Your task to perform on an android device: add a contact in the contacts app Image 0: 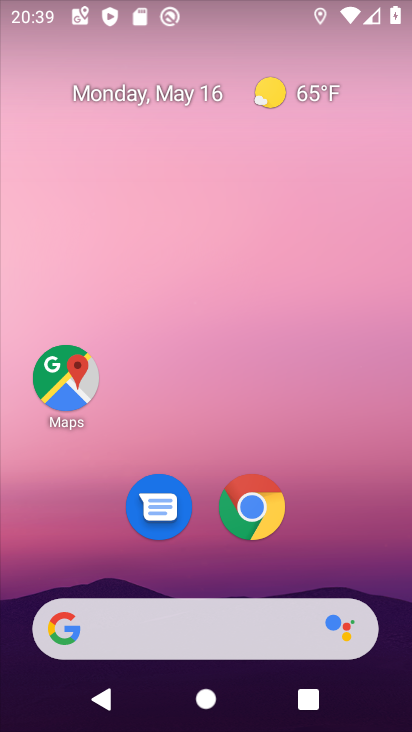
Step 0: drag from (203, 593) to (218, 18)
Your task to perform on an android device: add a contact in the contacts app Image 1: 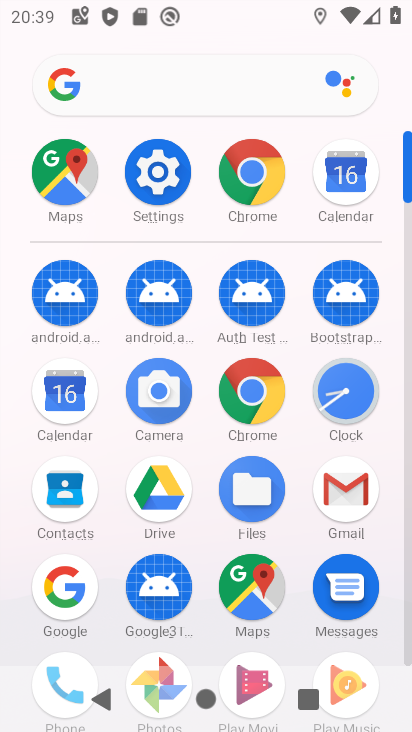
Step 1: drag from (94, 564) to (58, 192)
Your task to perform on an android device: add a contact in the contacts app Image 2: 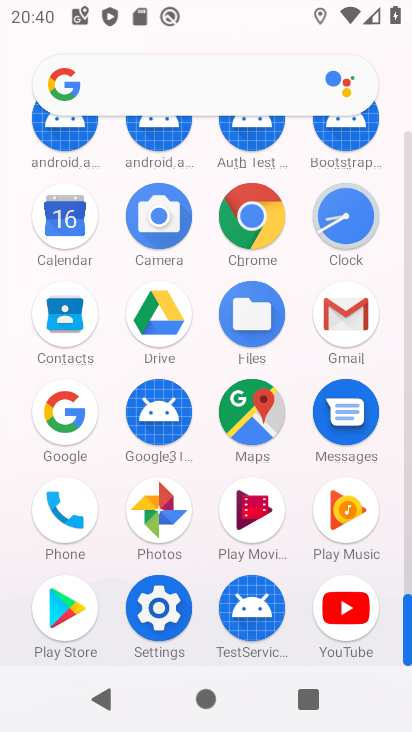
Step 2: click (76, 523)
Your task to perform on an android device: add a contact in the contacts app Image 3: 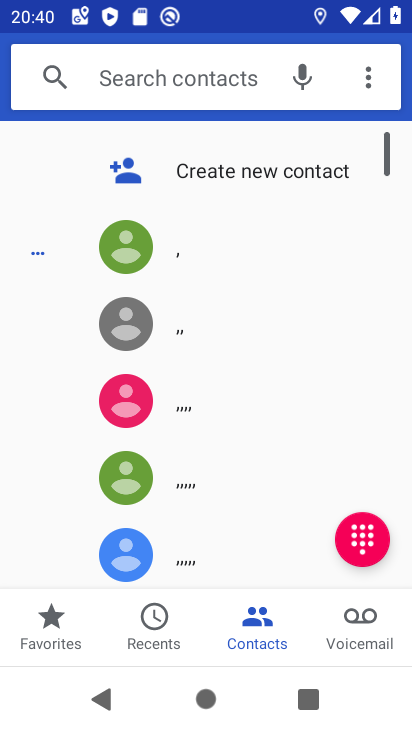
Step 3: click (176, 169)
Your task to perform on an android device: add a contact in the contacts app Image 4: 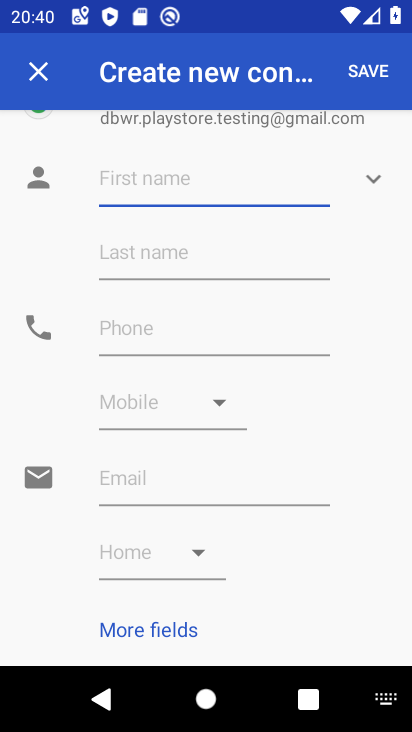
Step 4: type "king"
Your task to perform on an android device: add a contact in the contacts app Image 5: 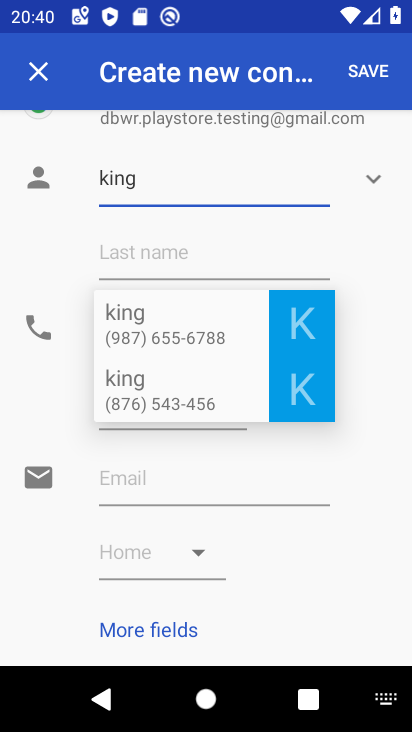
Step 5: click (227, 346)
Your task to perform on an android device: add a contact in the contacts app Image 6: 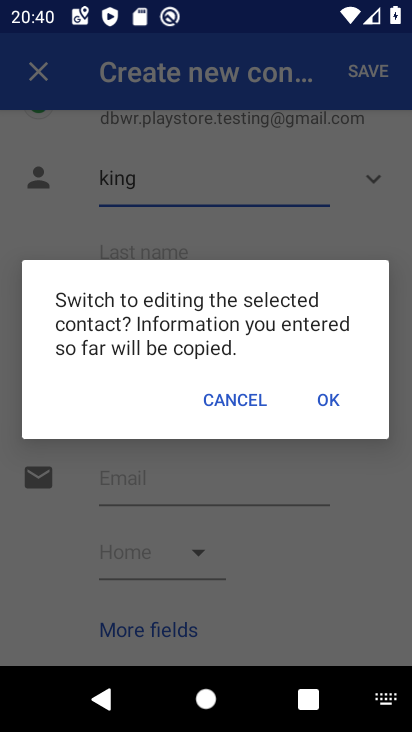
Step 6: click (320, 407)
Your task to perform on an android device: add a contact in the contacts app Image 7: 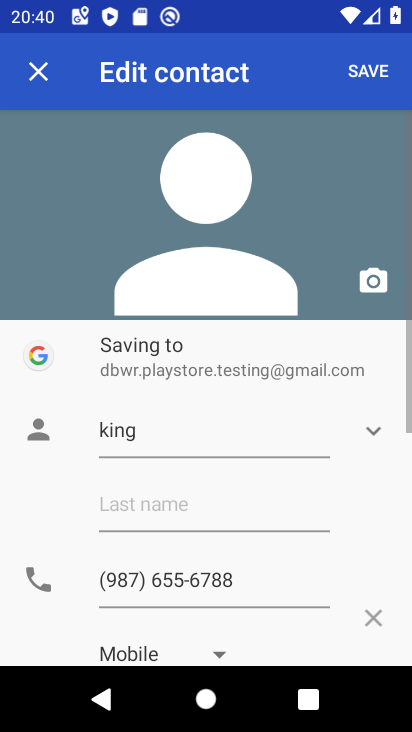
Step 7: click (364, 84)
Your task to perform on an android device: add a contact in the contacts app Image 8: 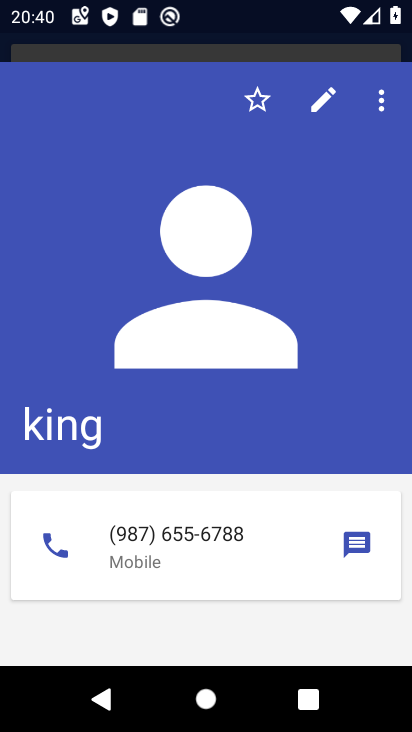
Step 8: task complete